Your task to perform on an android device: open a new tab in the chrome app Image 0: 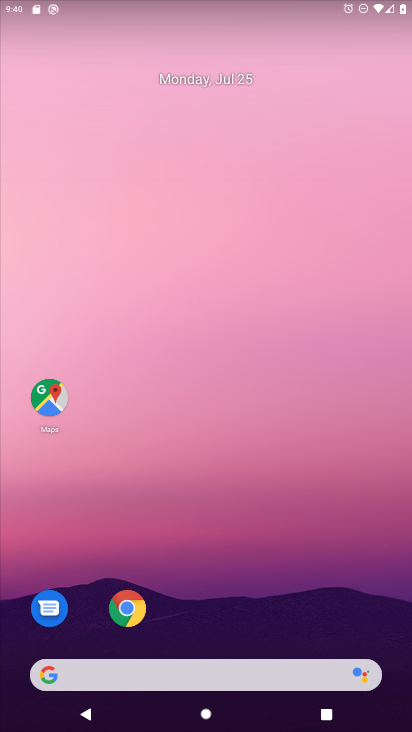
Step 0: click (135, 613)
Your task to perform on an android device: open a new tab in the chrome app Image 1: 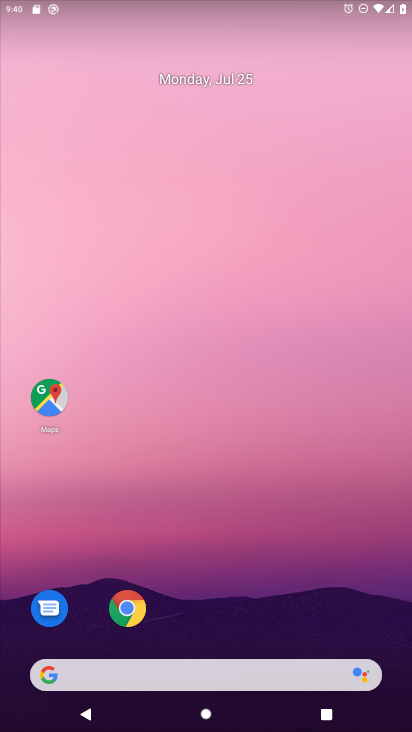
Step 1: click (135, 613)
Your task to perform on an android device: open a new tab in the chrome app Image 2: 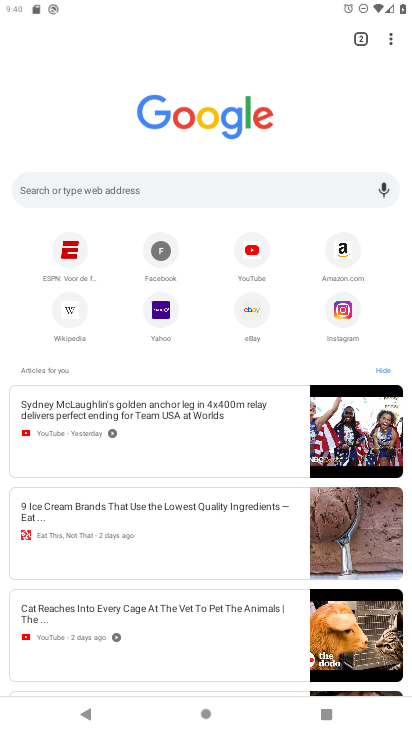
Step 2: click (387, 33)
Your task to perform on an android device: open a new tab in the chrome app Image 3: 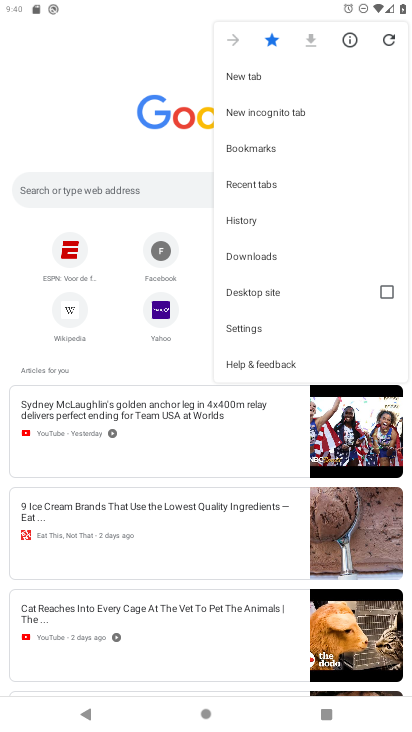
Step 3: click (275, 76)
Your task to perform on an android device: open a new tab in the chrome app Image 4: 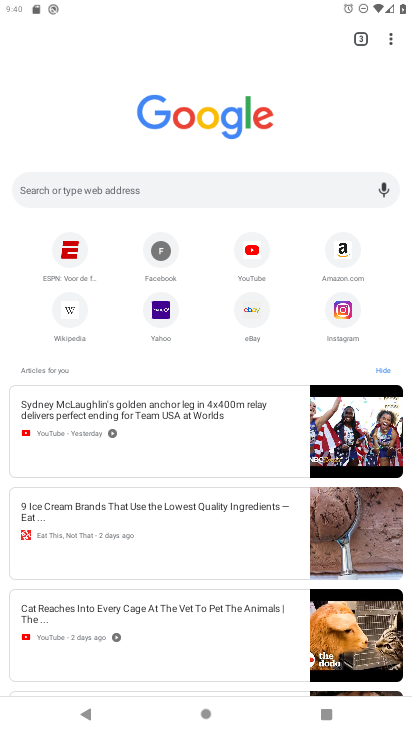
Step 4: task complete